Your task to perform on an android device: open device folders in google photos Image 0: 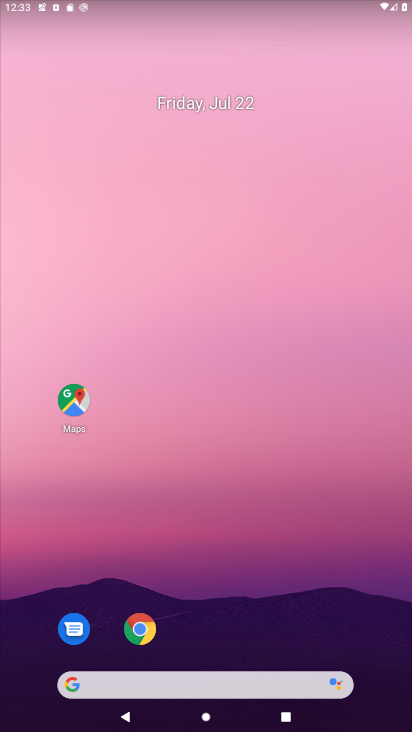
Step 0: drag from (190, 624) to (255, 65)
Your task to perform on an android device: open device folders in google photos Image 1: 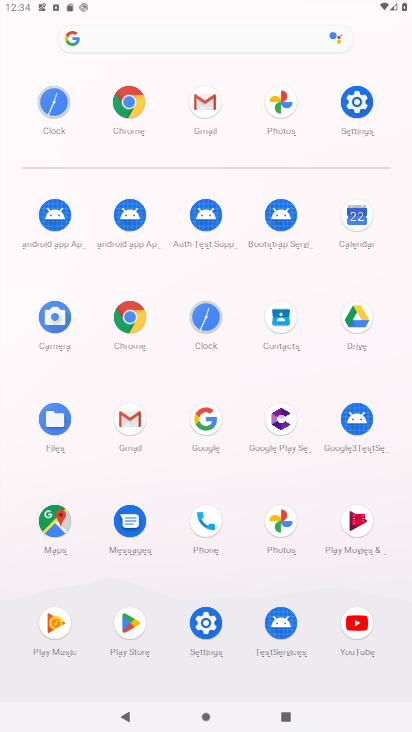
Step 1: click (287, 524)
Your task to perform on an android device: open device folders in google photos Image 2: 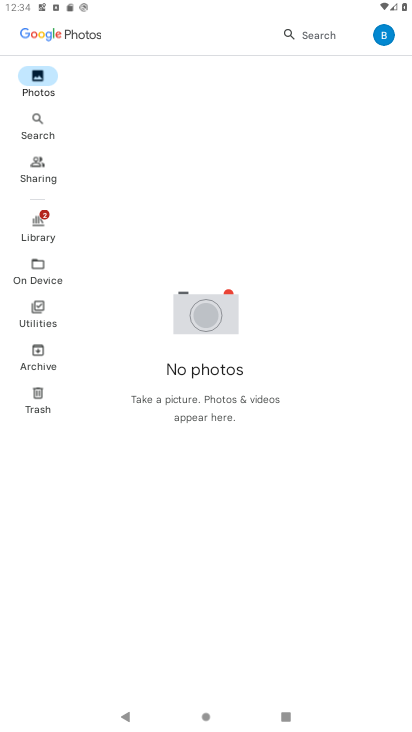
Step 2: click (388, 38)
Your task to perform on an android device: open device folders in google photos Image 3: 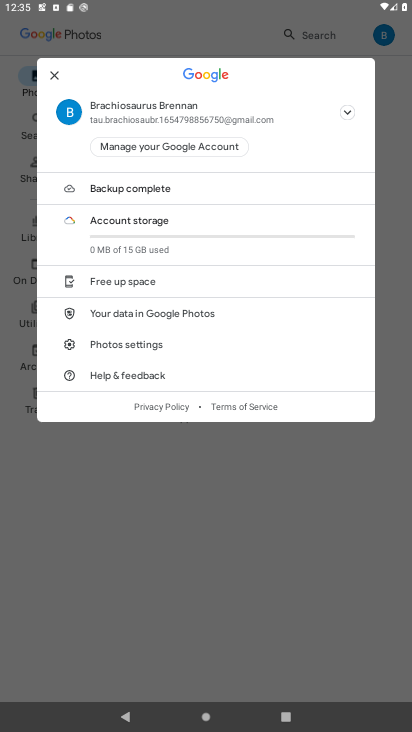
Step 3: click (233, 326)
Your task to perform on an android device: open device folders in google photos Image 4: 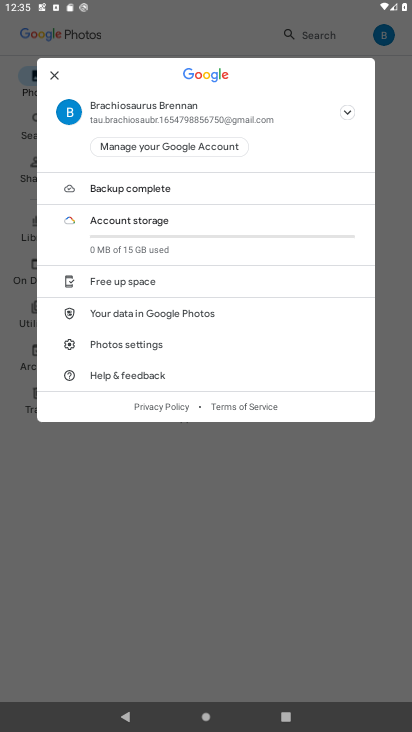
Step 4: click (167, 345)
Your task to perform on an android device: open device folders in google photos Image 5: 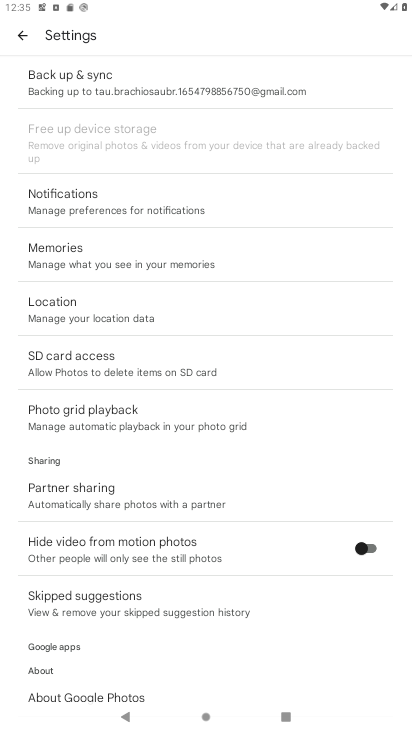
Step 5: task complete